Your task to perform on an android device: install app "Skype" Image 0: 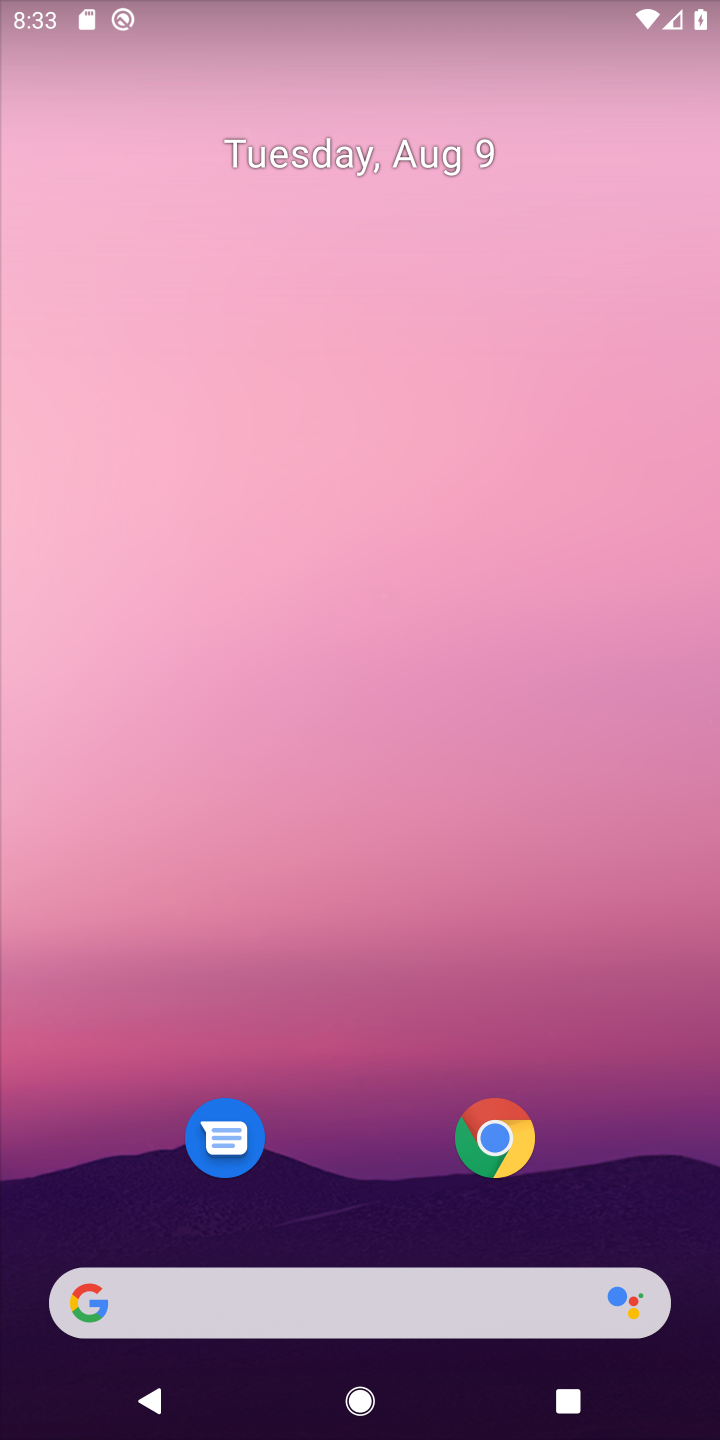
Step 0: drag from (378, 1134) to (442, 291)
Your task to perform on an android device: install app "Skype" Image 1: 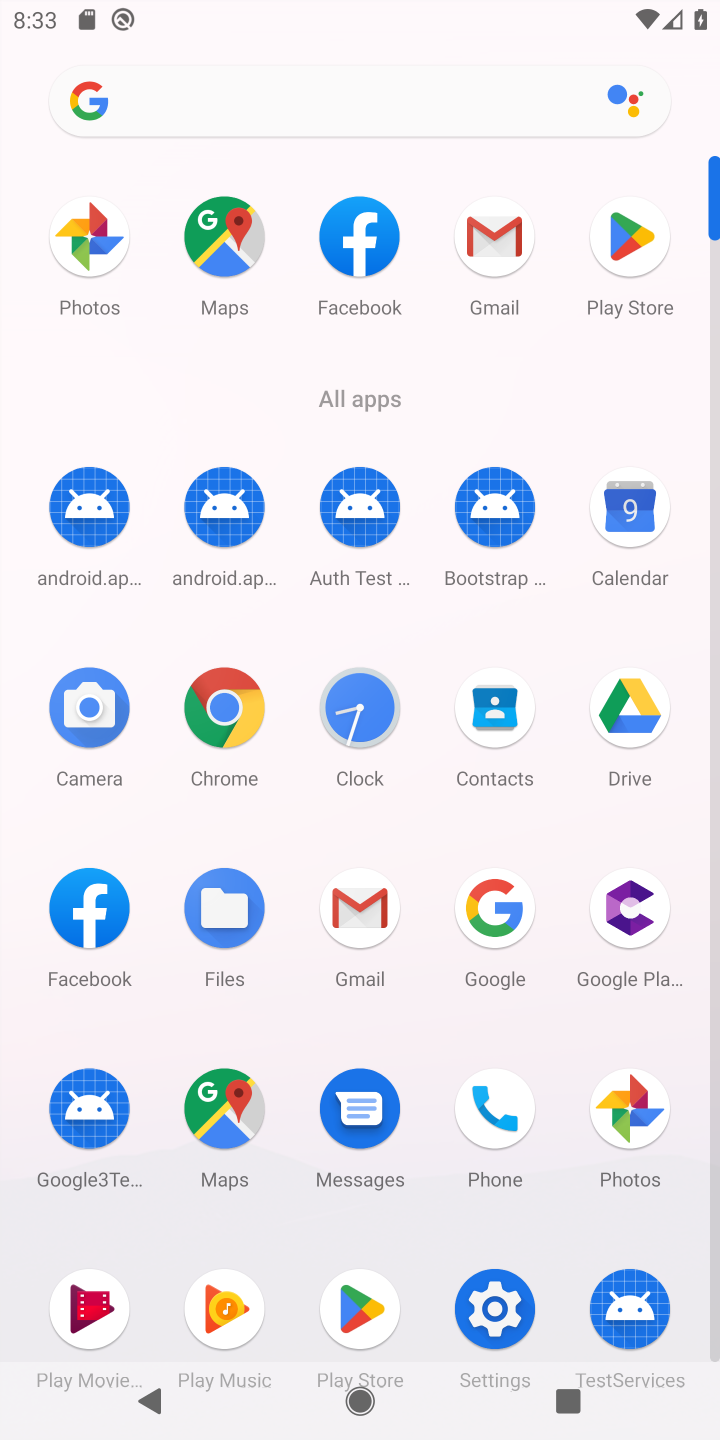
Step 1: click (375, 1298)
Your task to perform on an android device: install app "Skype" Image 2: 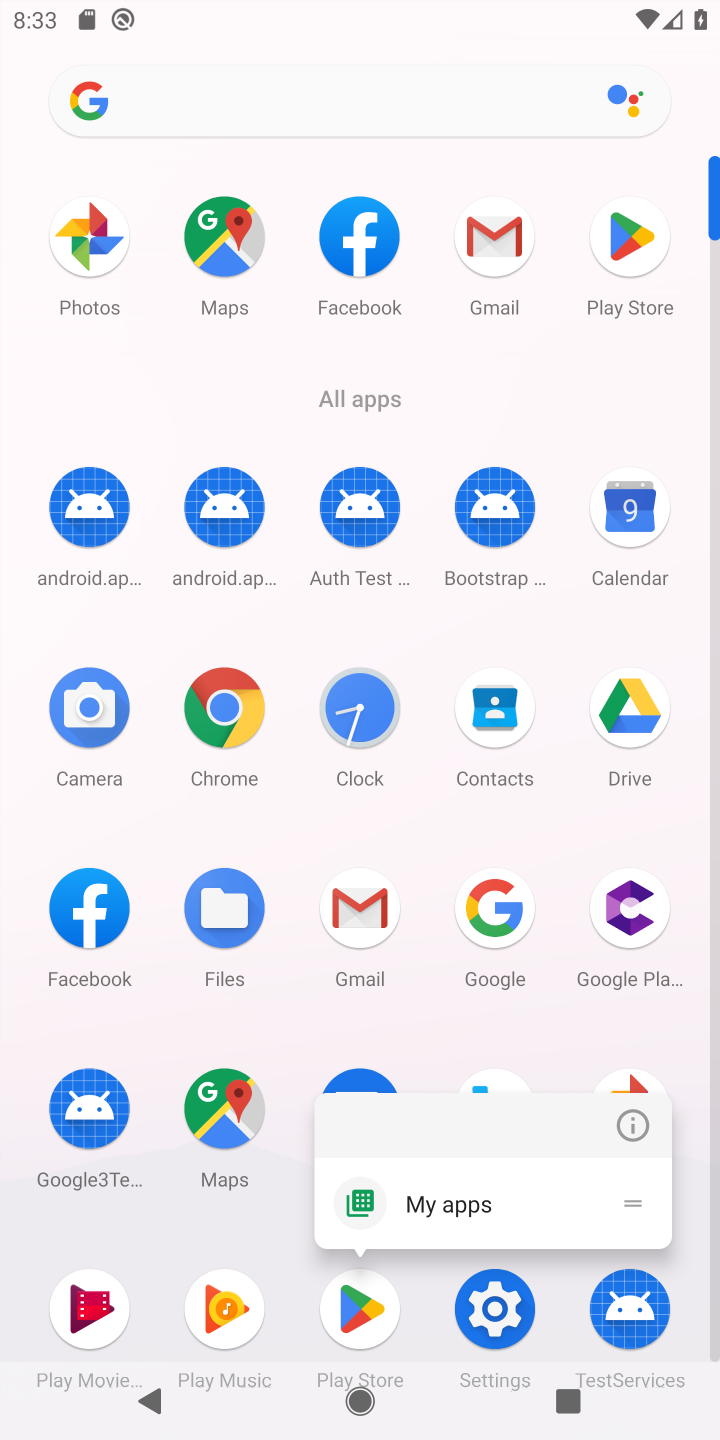
Step 2: click (375, 1298)
Your task to perform on an android device: install app "Skype" Image 3: 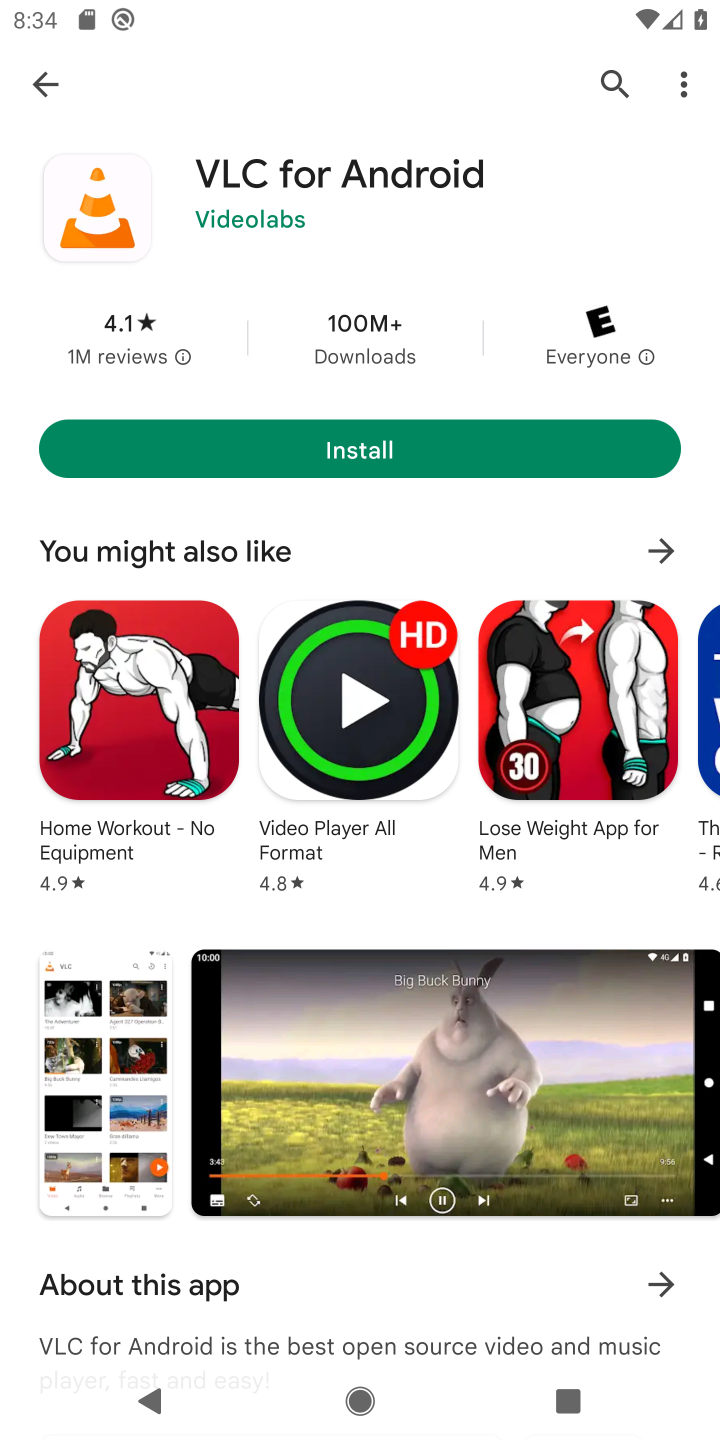
Step 3: click (629, 79)
Your task to perform on an android device: install app "Skype" Image 4: 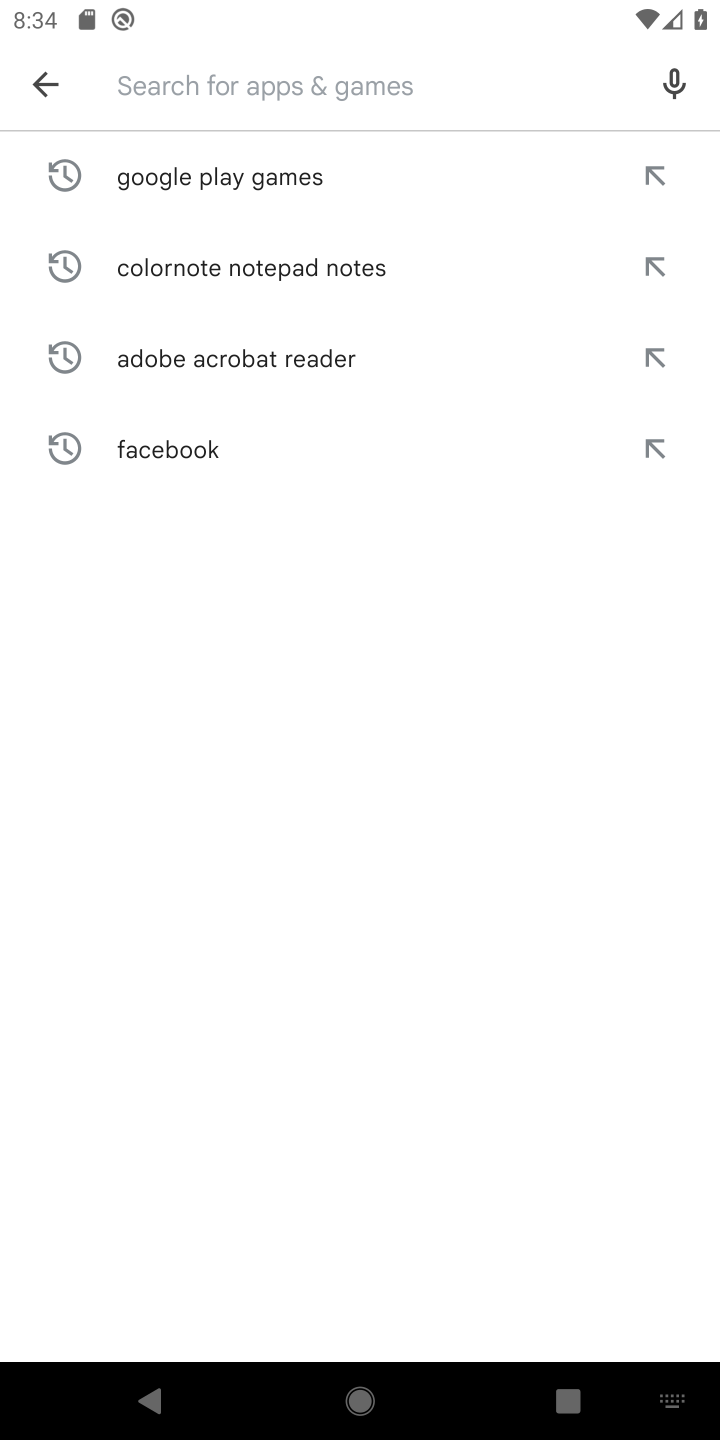
Step 4: type "Skype"
Your task to perform on an android device: install app "Skype" Image 5: 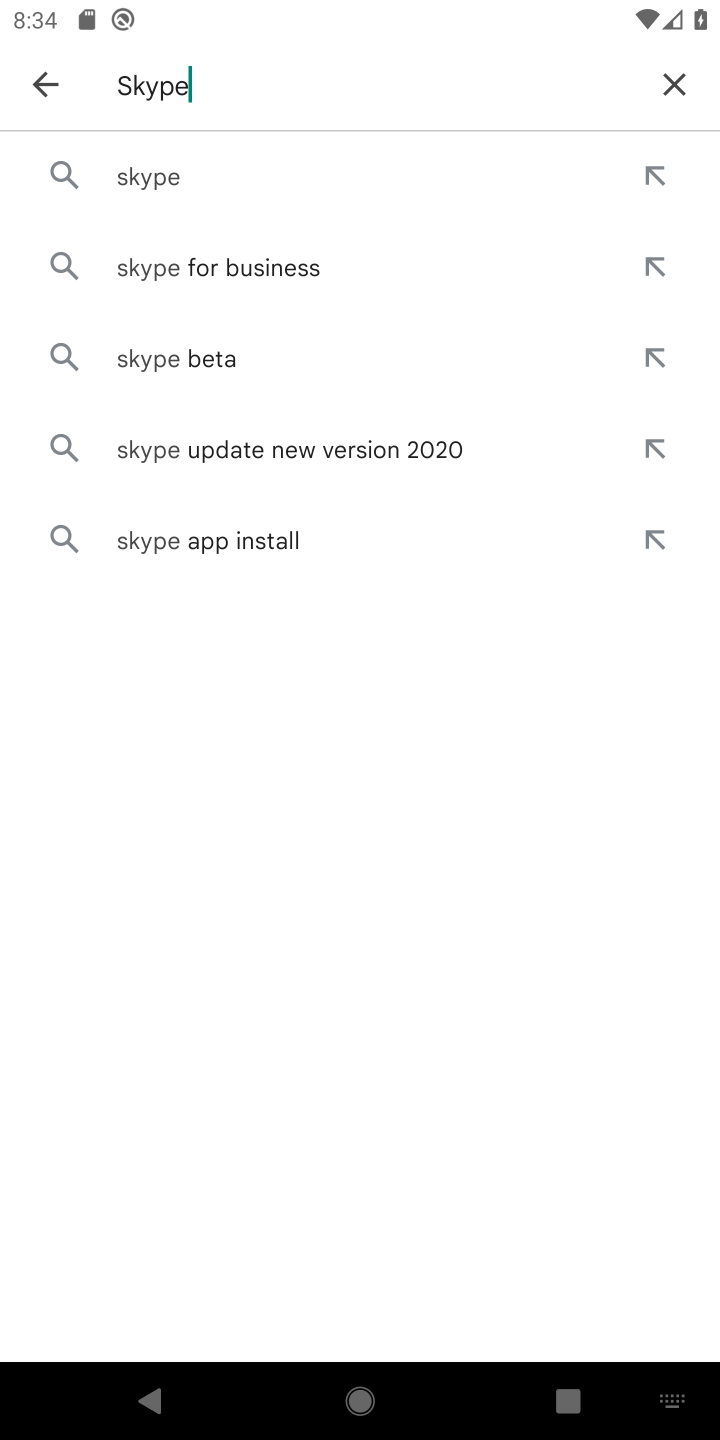
Step 5: click (129, 155)
Your task to perform on an android device: install app "Skype" Image 6: 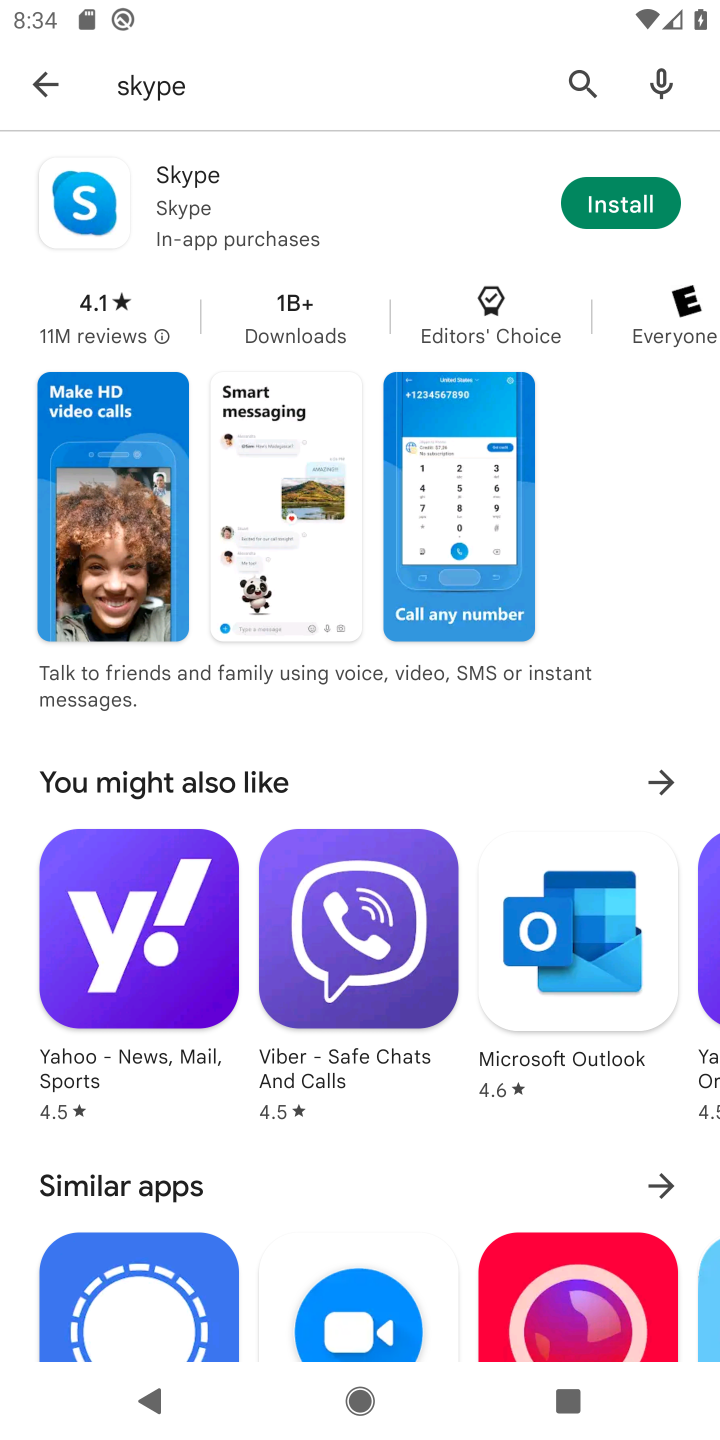
Step 6: click (584, 186)
Your task to perform on an android device: install app "Skype" Image 7: 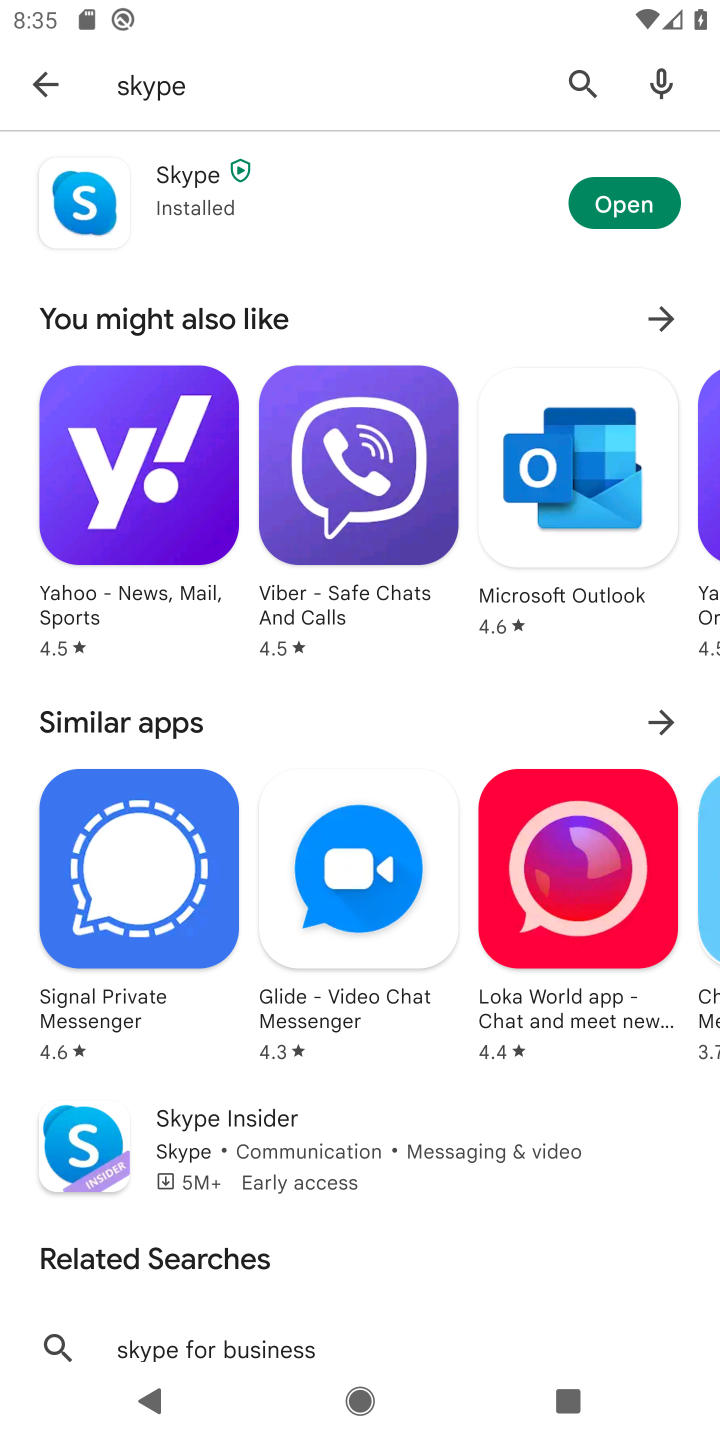
Step 7: task complete